Your task to perform on an android device: turn on javascript in the chrome app Image 0: 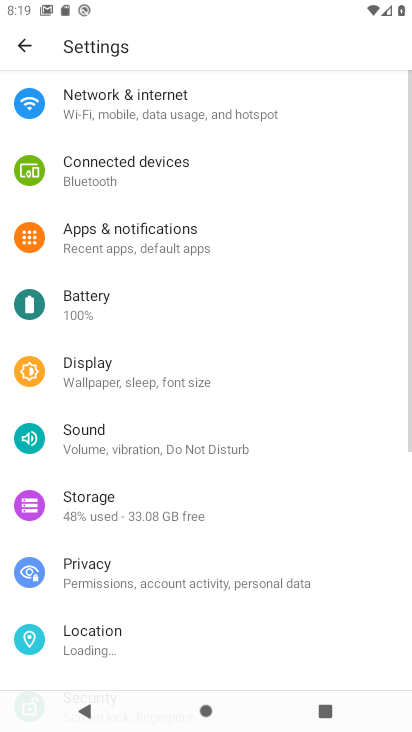
Step 0: press home button
Your task to perform on an android device: turn on javascript in the chrome app Image 1: 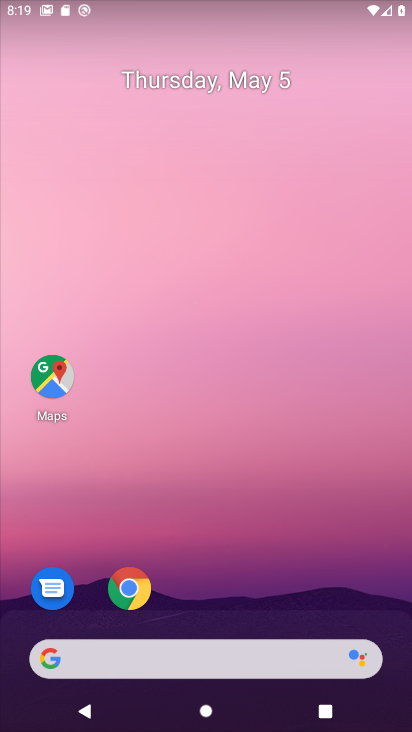
Step 1: drag from (213, 621) to (223, 66)
Your task to perform on an android device: turn on javascript in the chrome app Image 2: 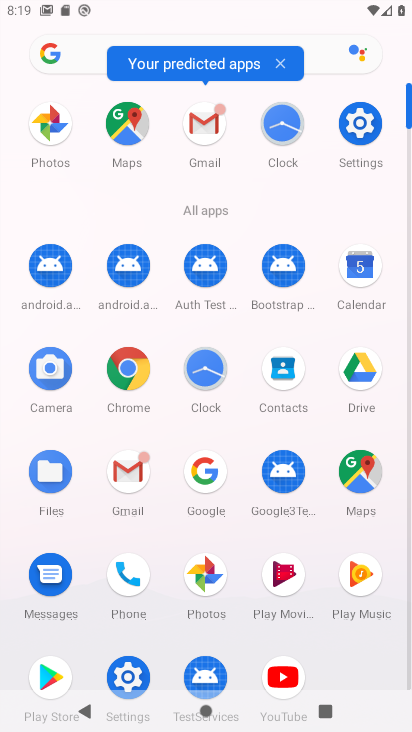
Step 2: click (128, 365)
Your task to perform on an android device: turn on javascript in the chrome app Image 3: 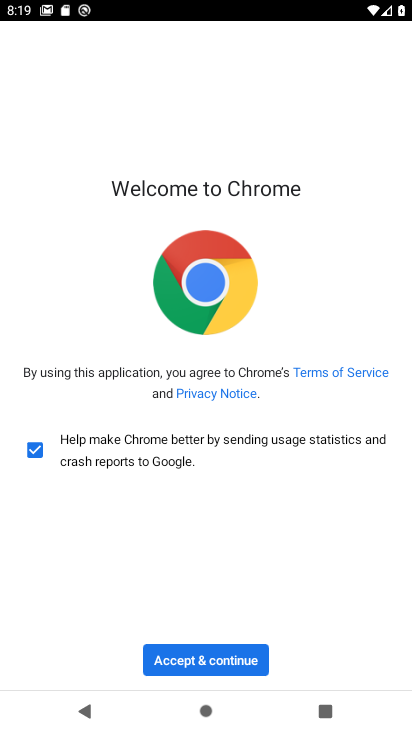
Step 3: click (202, 656)
Your task to perform on an android device: turn on javascript in the chrome app Image 4: 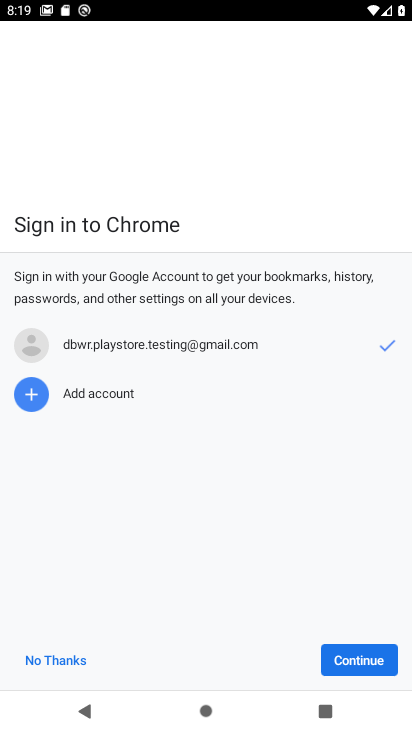
Step 4: click (356, 662)
Your task to perform on an android device: turn on javascript in the chrome app Image 5: 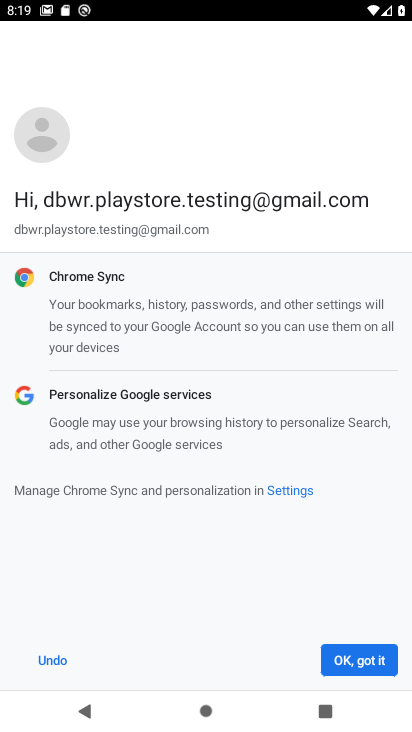
Step 5: click (355, 655)
Your task to perform on an android device: turn on javascript in the chrome app Image 6: 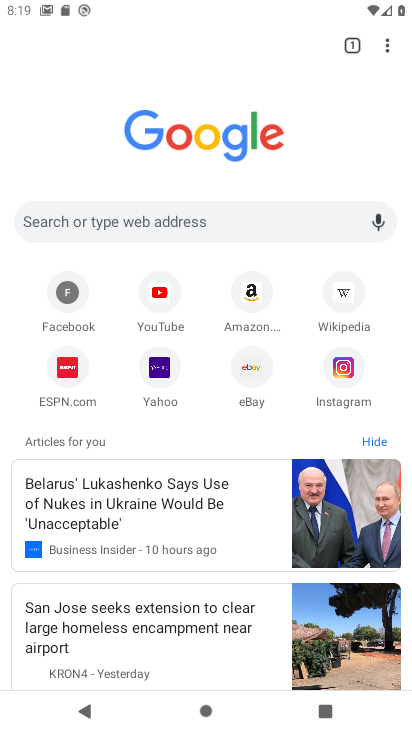
Step 6: click (383, 43)
Your task to perform on an android device: turn on javascript in the chrome app Image 7: 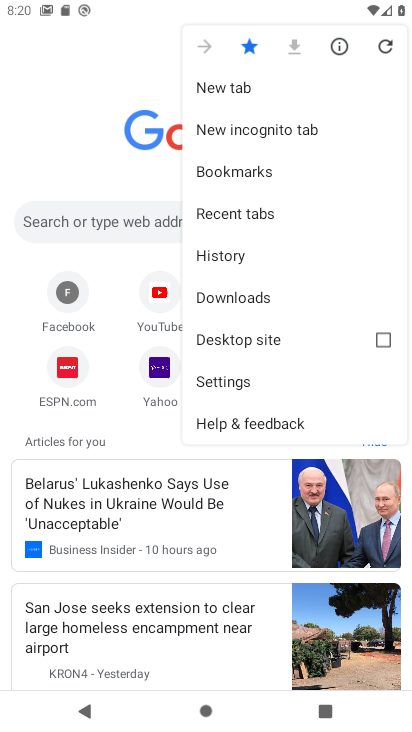
Step 7: click (251, 380)
Your task to perform on an android device: turn on javascript in the chrome app Image 8: 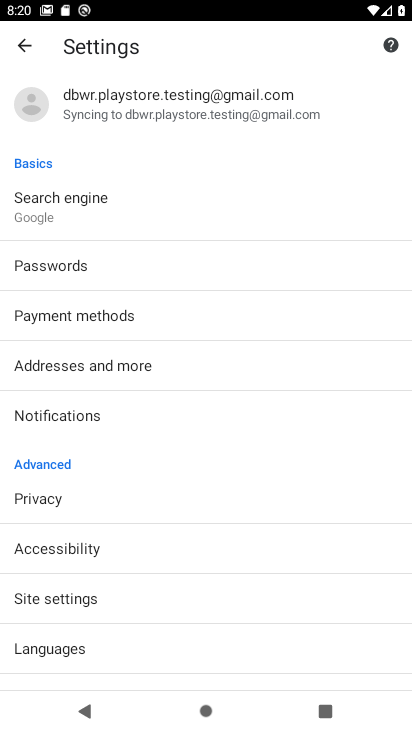
Step 8: drag from (151, 634) to (144, 131)
Your task to perform on an android device: turn on javascript in the chrome app Image 9: 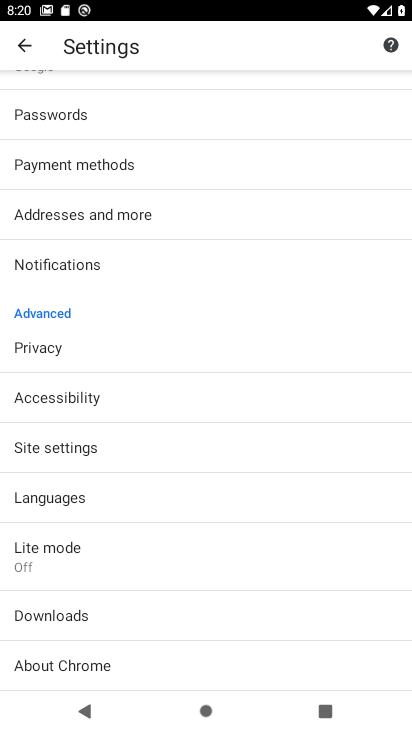
Step 9: click (108, 440)
Your task to perform on an android device: turn on javascript in the chrome app Image 10: 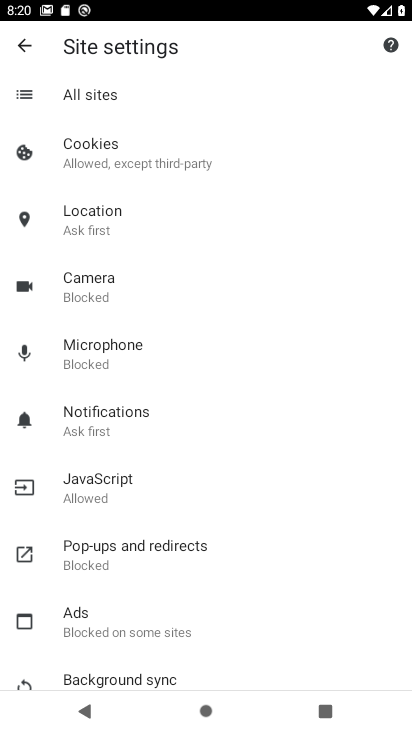
Step 10: click (129, 487)
Your task to perform on an android device: turn on javascript in the chrome app Image 11: 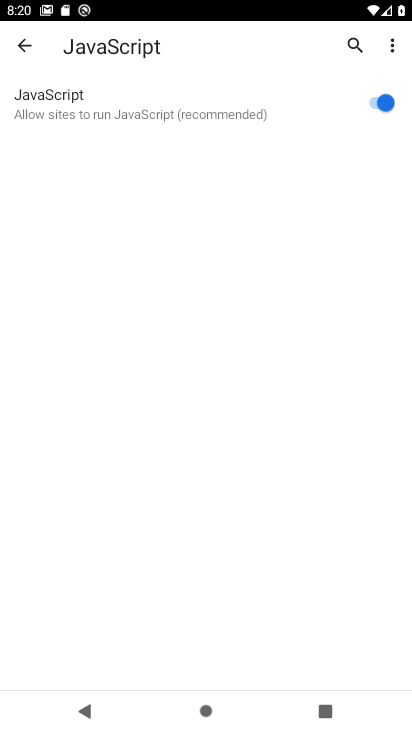
Step 11: task complete